Your task to perform on an android device: open chrome and create a bookmark for the current page Image 0: 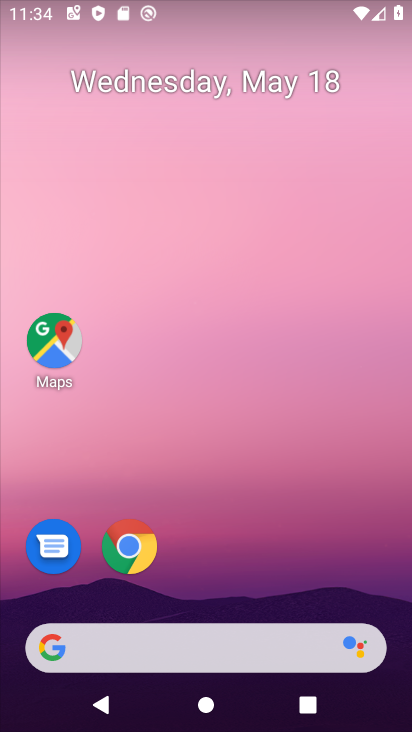
Step 0: click (131, 542)
Your task to perform on an android device: open chrome and create a bookmark for the current page Image 1: 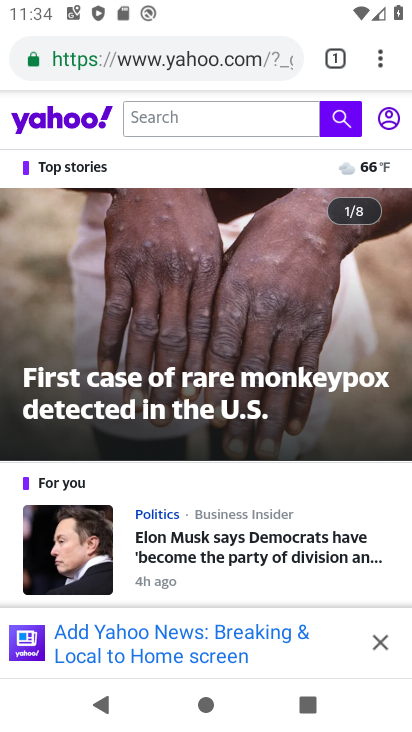
Step 1: click (373, 59)
Your task to perform on an android device: open chrome and create a bookmark for the current page Image 2: 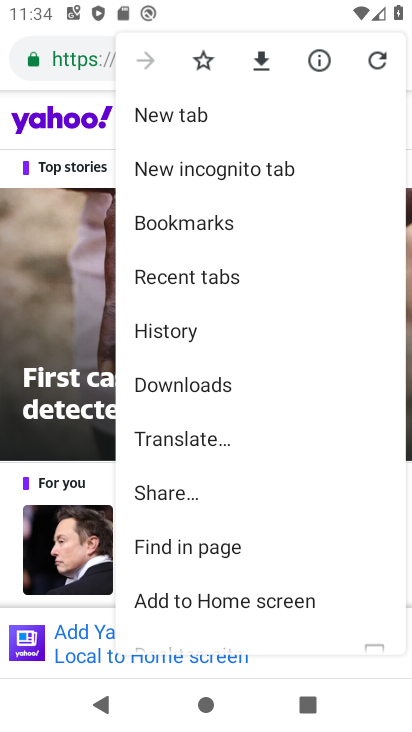
Step 2: click (205, 67)
Your task to perform on an android device: open chrome and create a bookmark for the current page Image 3: 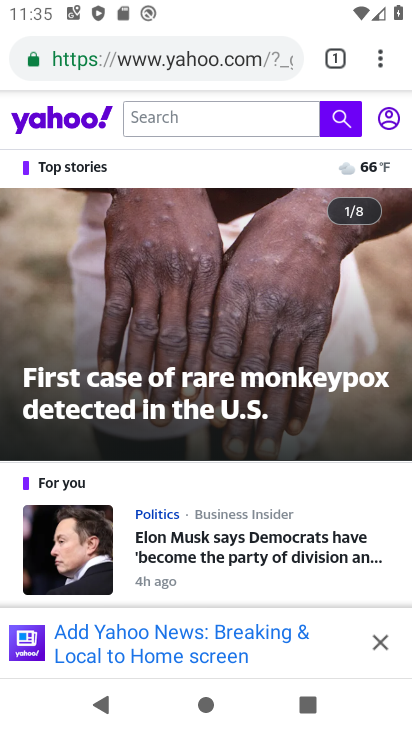
Step 3: task complete